Your task to perform on an android device: check android version Image 0: 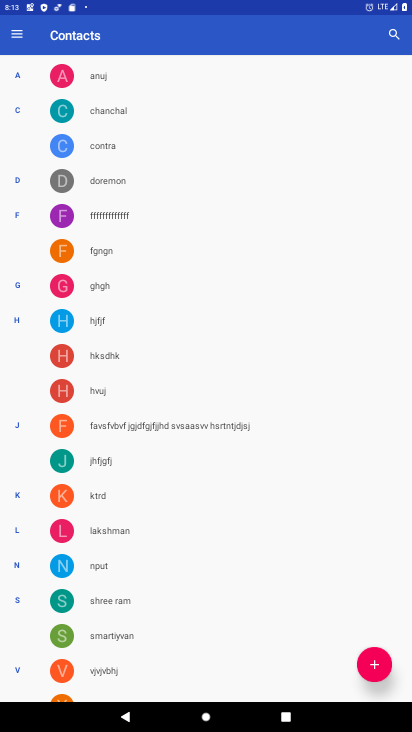
Step 0: press home button
Your task to perform on an android device: check android version Image 1: 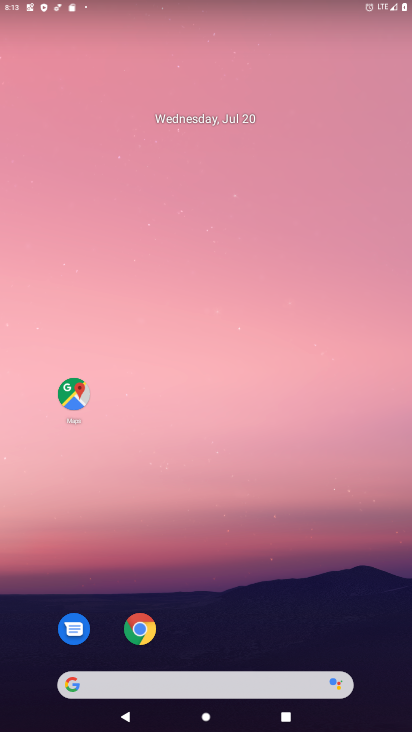
Step 1: drag from (200, 551) to (200, 229)
Your task to perform on an android device: check android version Image 2: 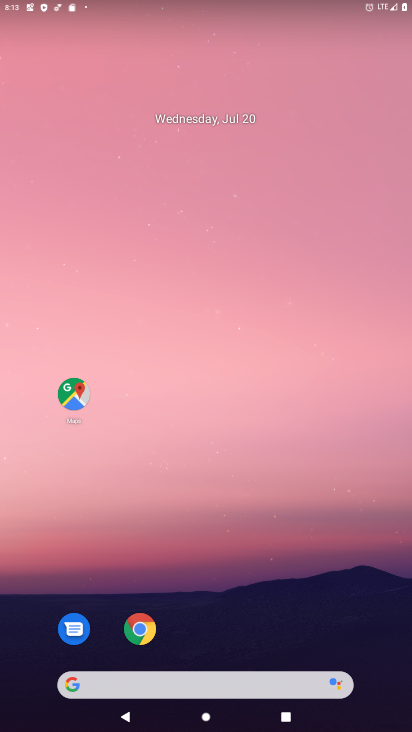
Step 2: click (214, 640)
Your task to perform on an android device: check android version Image 3: 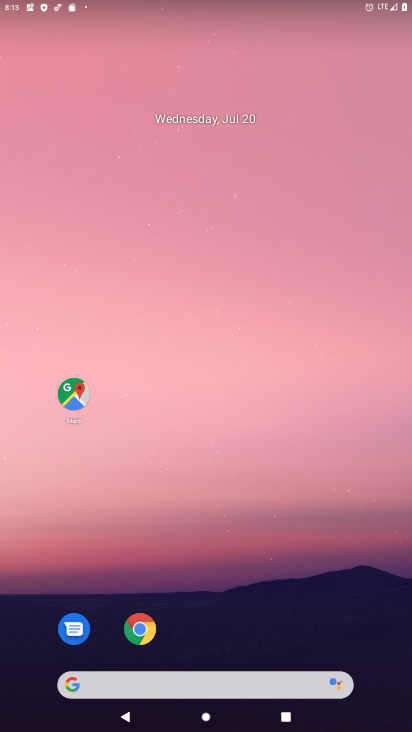
Step 3: drag from (200, 602) to (163, 21)
Your task to perform on an android device: check android version Image 4: 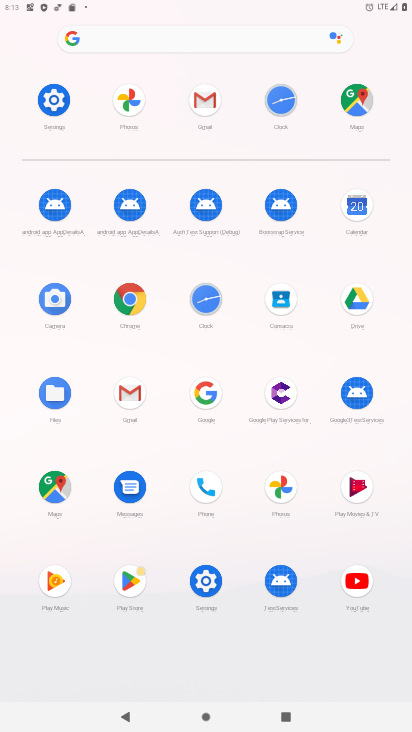
Step 4: click (51, 95)
Your task to perform on an android device: check android version Image 5: 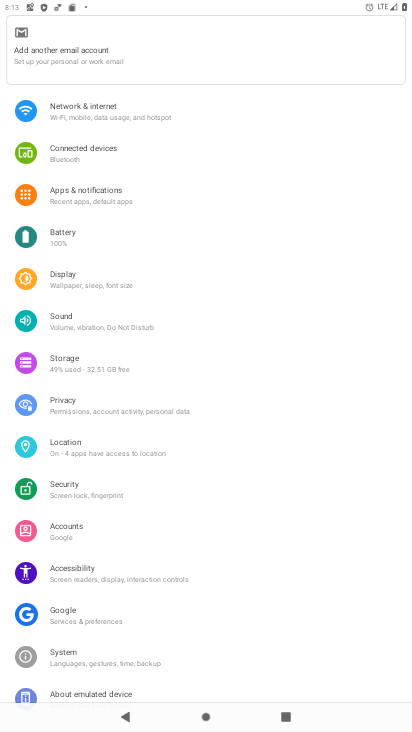
Step 5: click (90, 691)
Your task to perform on an android device: check android version Image 6: 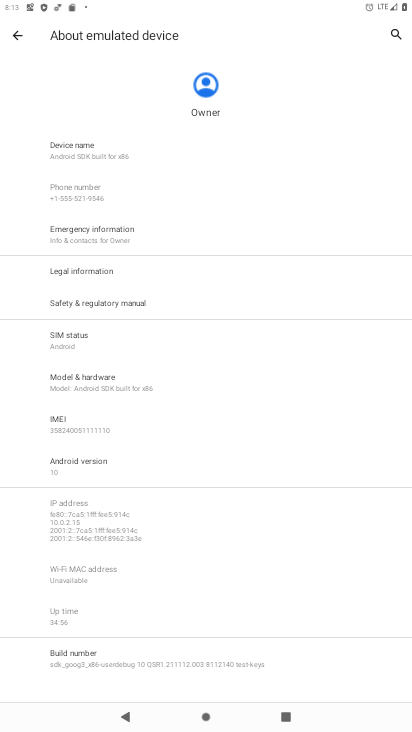
Step 6: click (106, 471)
Your task to perform on an android device: check android version Image 7: 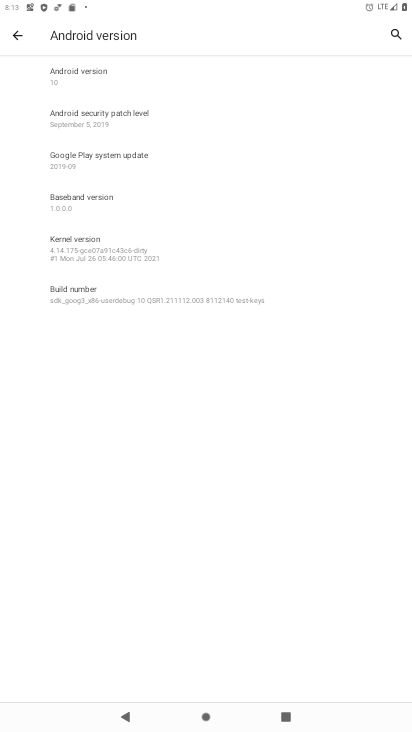
Step 7: task complete